Your task to perform on an android device: Search for vegetarian restaurants on Maps Image 0: 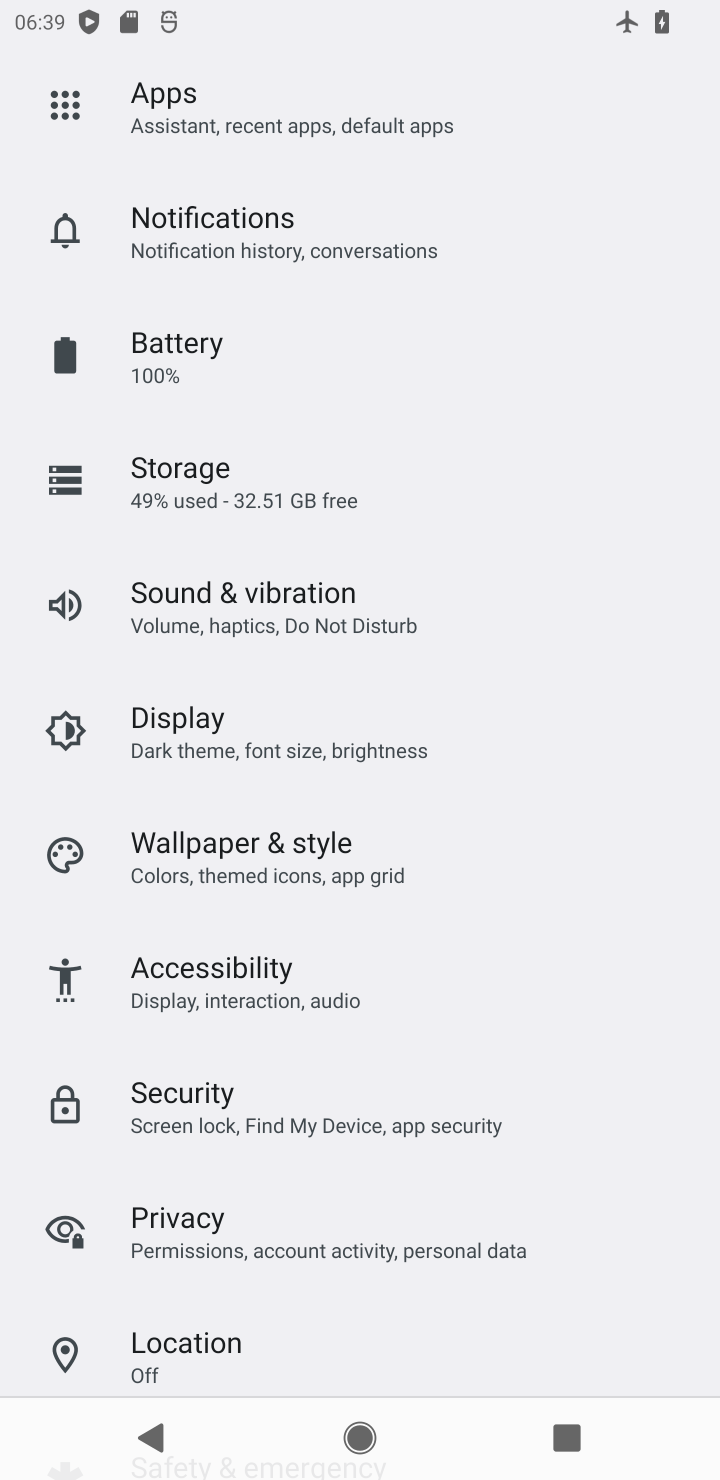
Step 0: press home button
Your task to perform on an android device: Search for vegetarian restaurants on Maps Image 1: 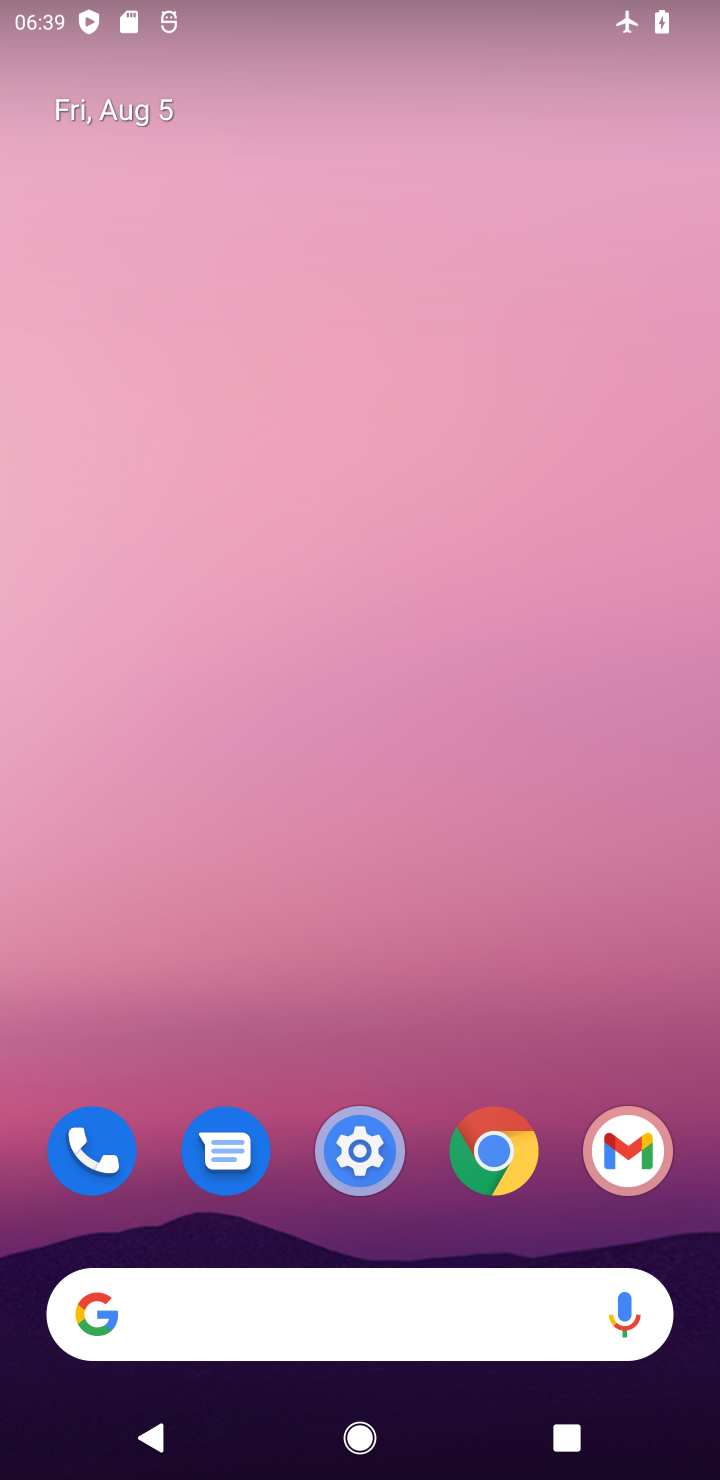
Step 1: click (633, 1173)
Your task to perform on an android device: Search for vegetarian restaurants on Maps Image 2: 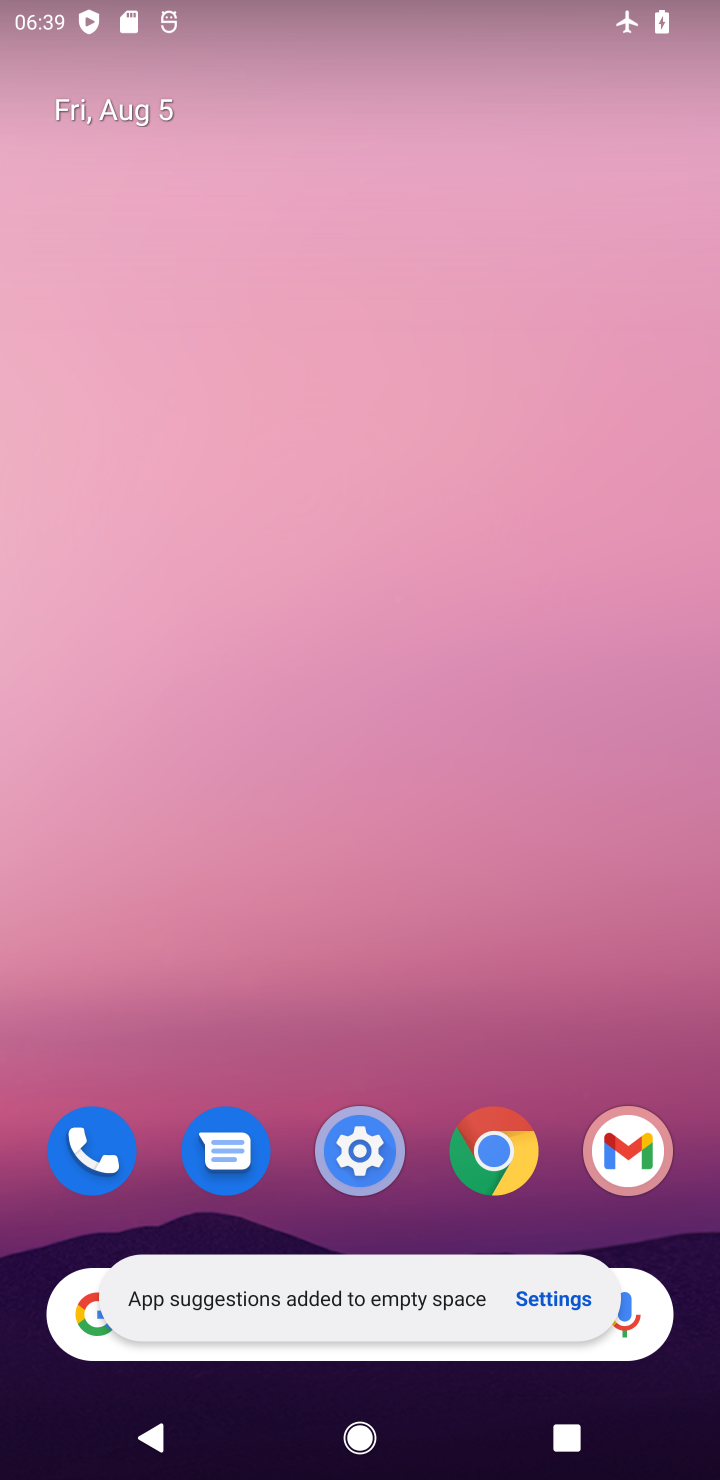
Step 2: drag from (444, 1112) to (437, 4)
Your task to perform on an android device: Search for vegetarian restaurants on Maps Image 3: 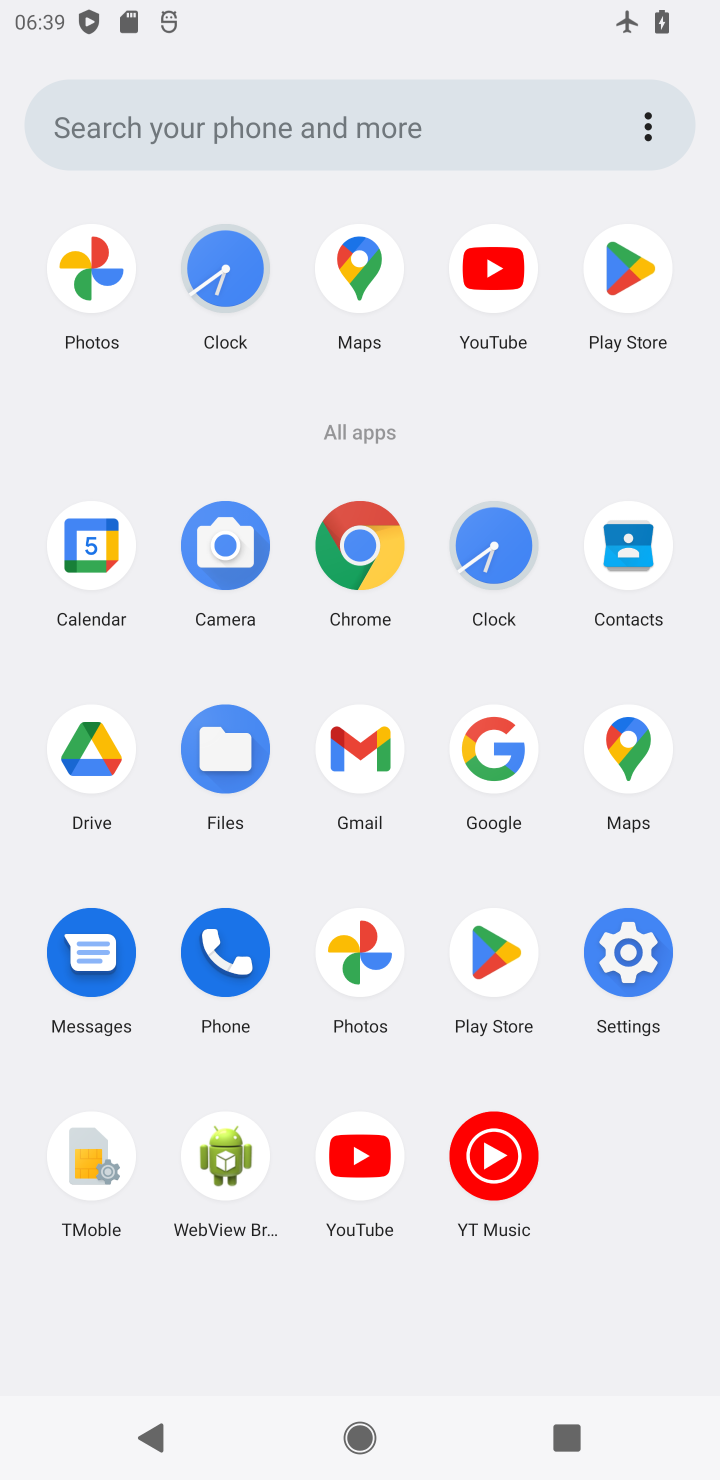
Step 3: click (638, 807)
Your task to perform on an android device: Search for vegetarian restaurants on Maps Image 4: 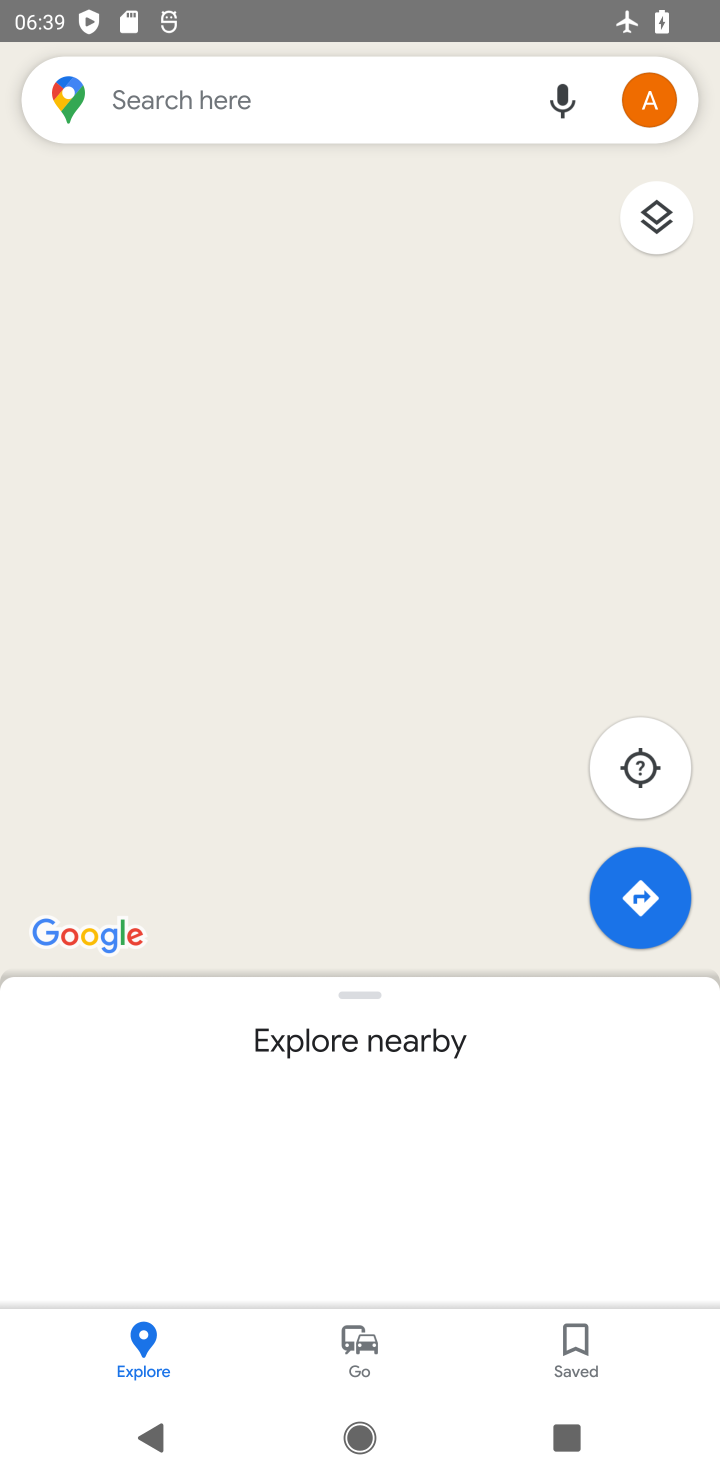
Step 4: click (320, 130)
Your task to perform on an android device: Search for vegetarian restaurants on Maps Image 5: 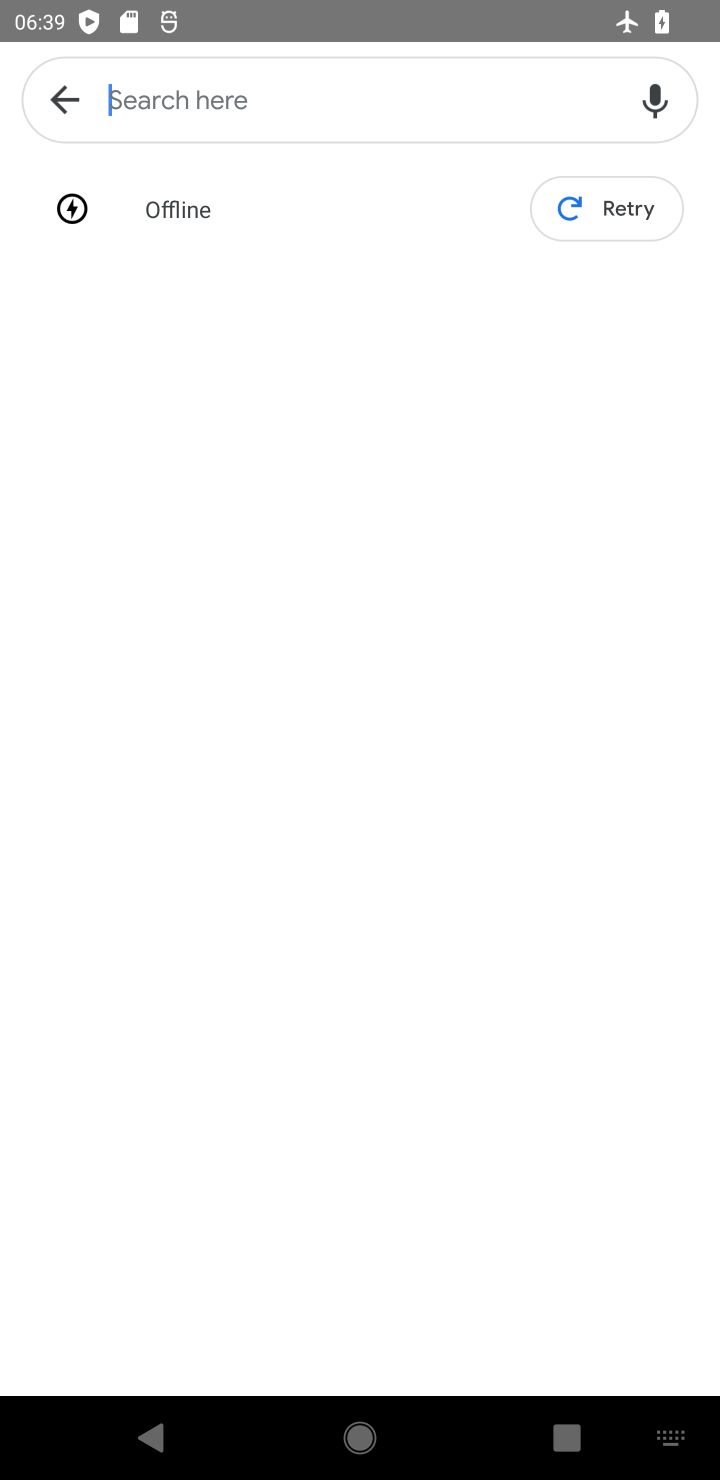
Step 5: type "vegetarian restaurants"
Your task to perform on an android device: Search for vegetarian restaurants on Maps Image 6: 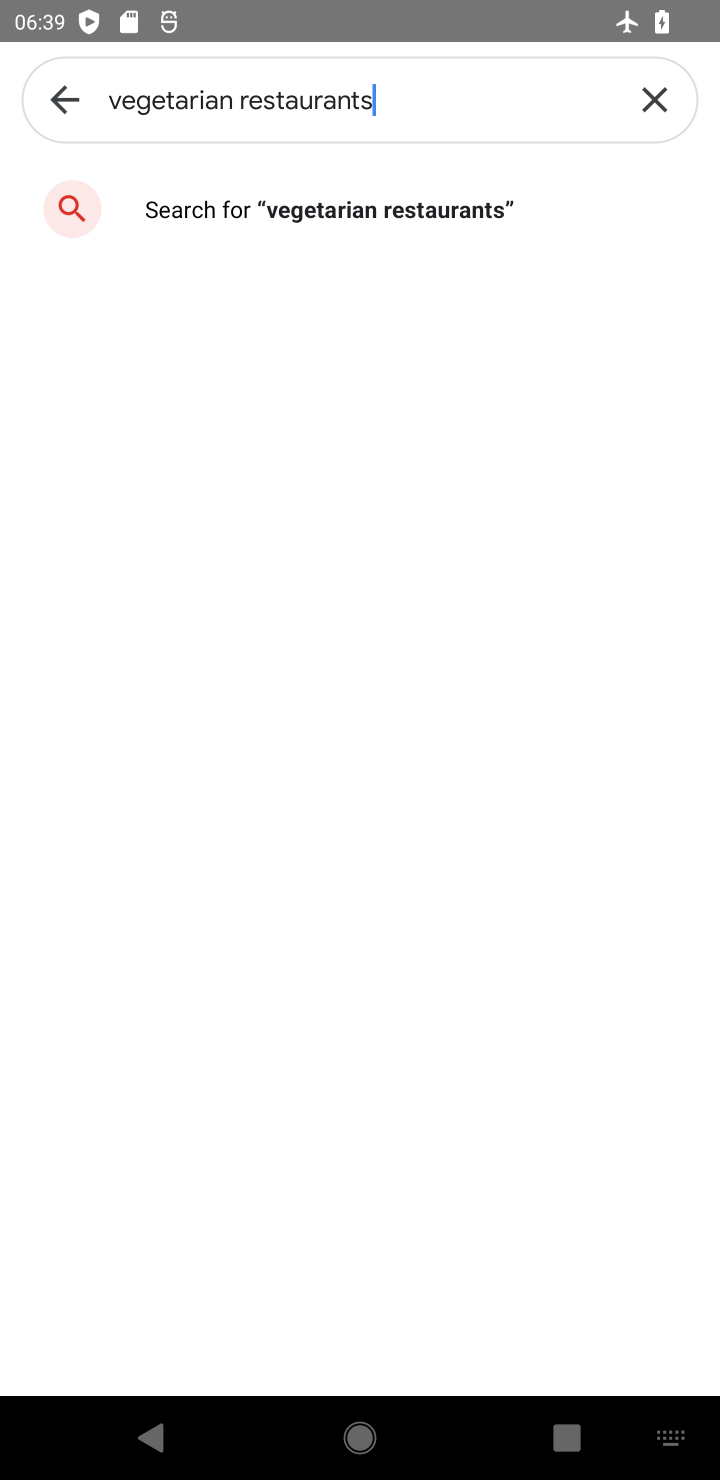
Step 6: click (543, 226)
Your task to perform on an android device: Search for vegetarian restaurants on Maps Image 7: 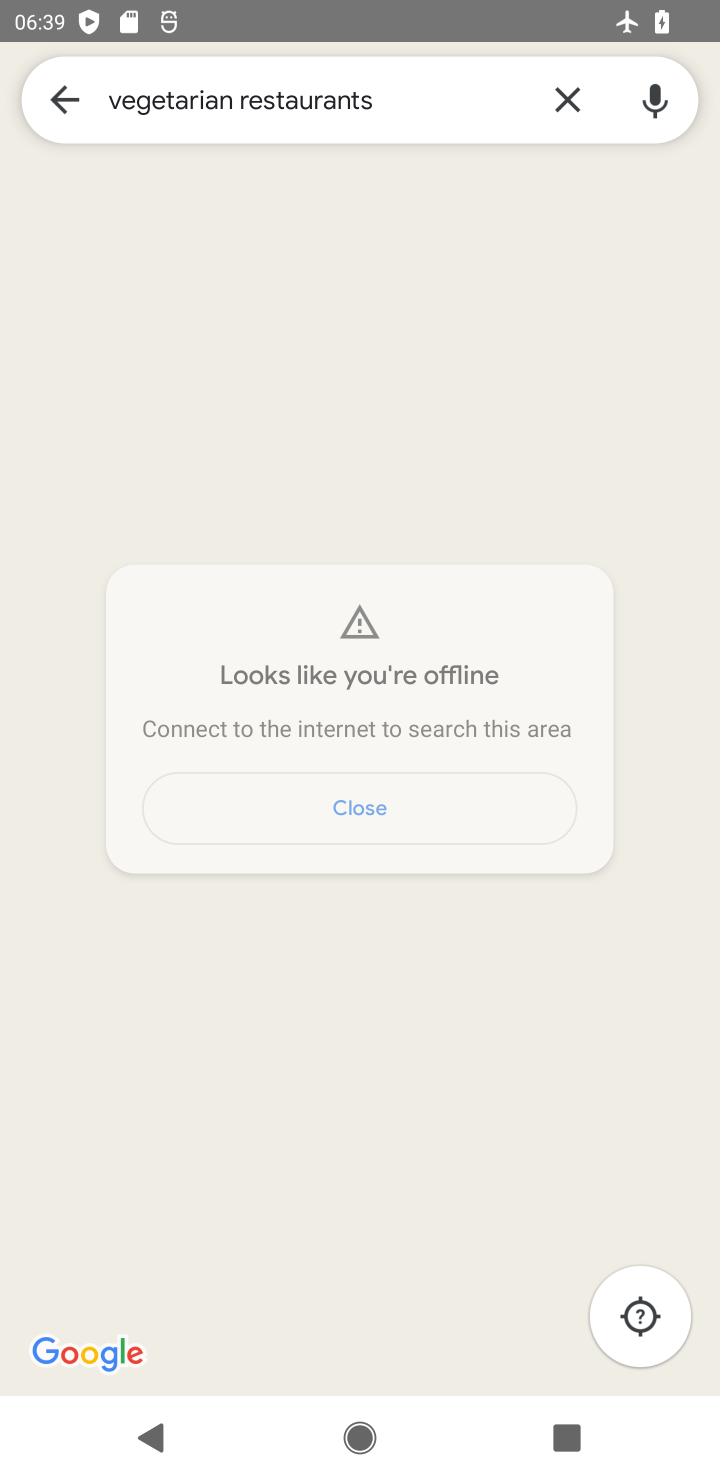
Step 7: task complete